Your task to perform on an android device: check google app version Image 0: 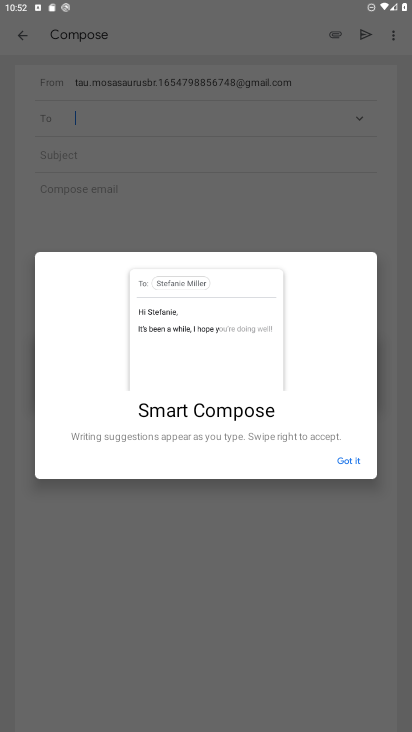
Step 0: press home button
Your task to perform on an android device: check google app version Image 1: 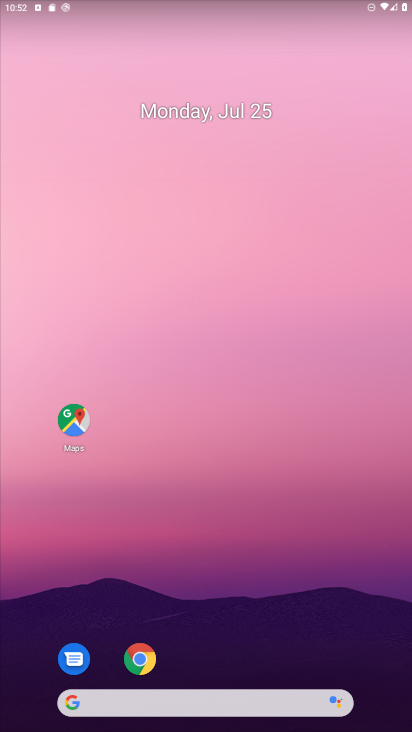
Step 1: drag from (185, 646) to (244, 212)
Your task to perform on an android device: check google app version Image 2: 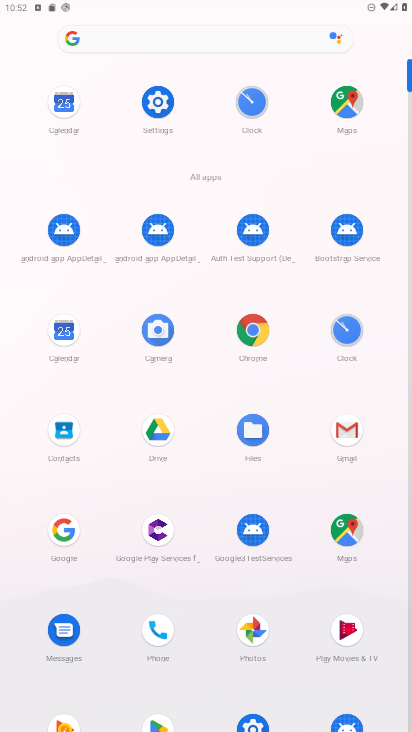
Step 2: click (77, 548)
Your task to perform on an android device: check google app version Image 3: 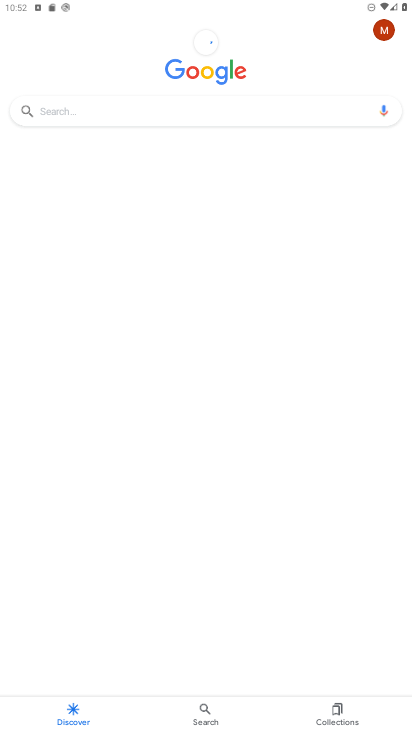
Step 3: click (384, 26)
Your task to perform on an android device: check google app version Image 4: 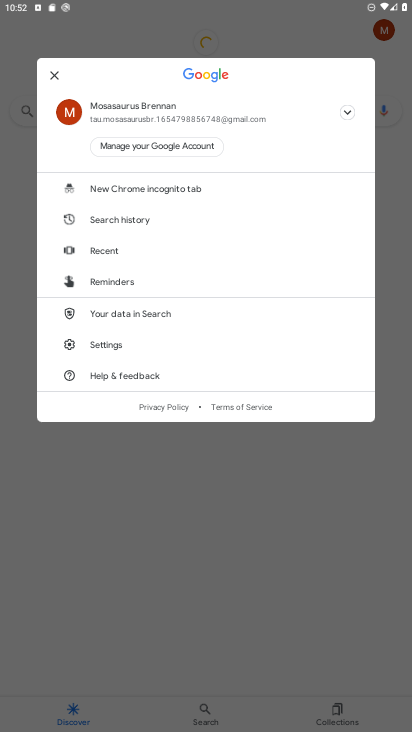
Step 4: click (381, 24)
Your task to perform on an android device: check google app version Image 5: 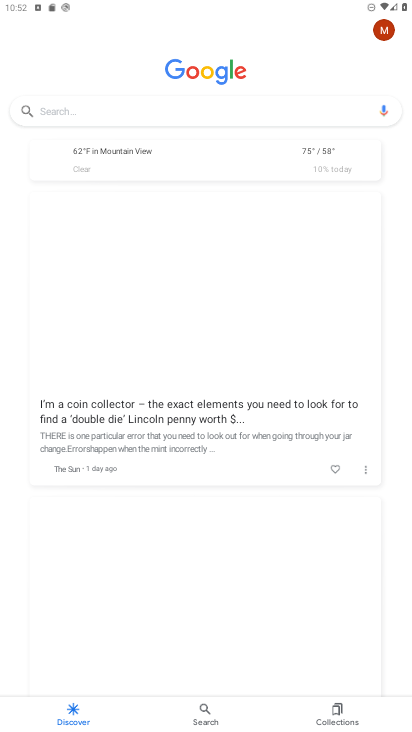
Step 5: click (392, 36)
Your task to perform on an android device: check google app version Image 6: 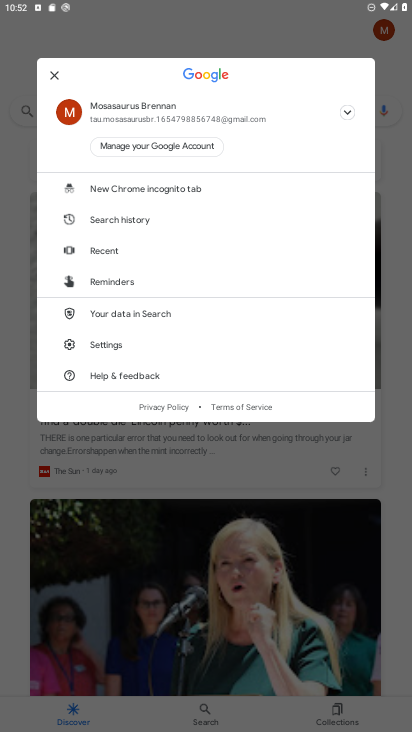
Step 6: click (103, 345)
Your task to perform on an android device: check google app version Image 7: 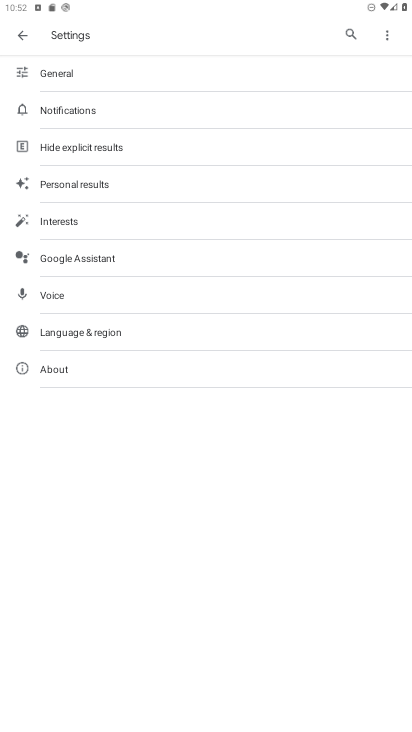
Step 7: click (135, 372)
Your task to perform on an android device: check google app version Image 8: 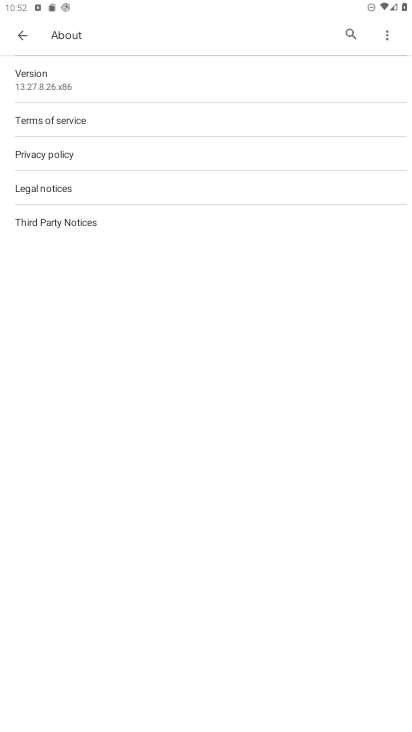
Step 8: click (72, 95)
Your task to perform on an android device: check google app version Image 9: 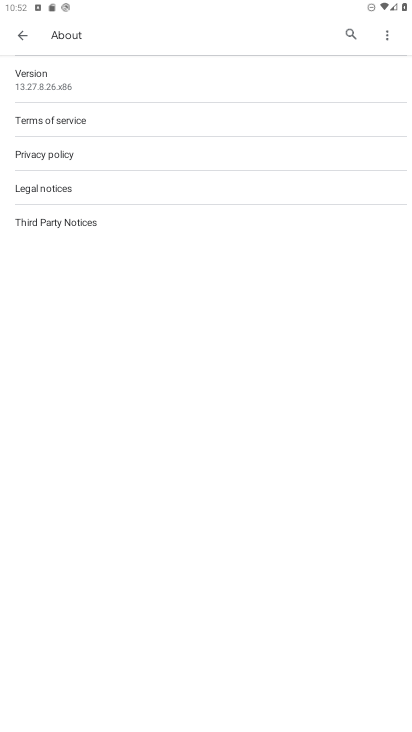
Step 9: task complete